Your task to perform on an android device: check google app version Image 0: 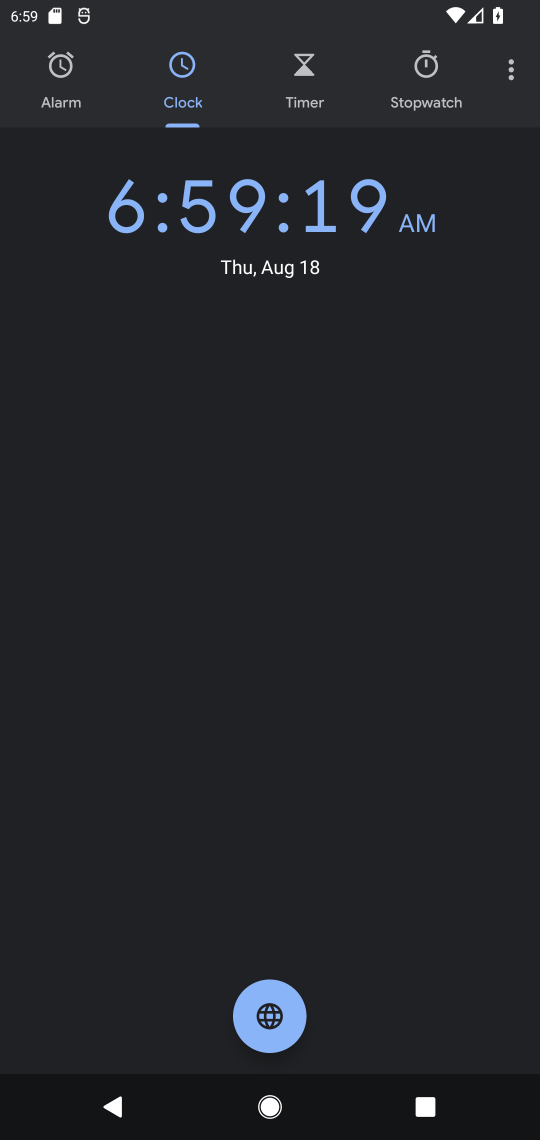
Step 0: press home button
Your task to perform on an android device: check google app version Image 1: 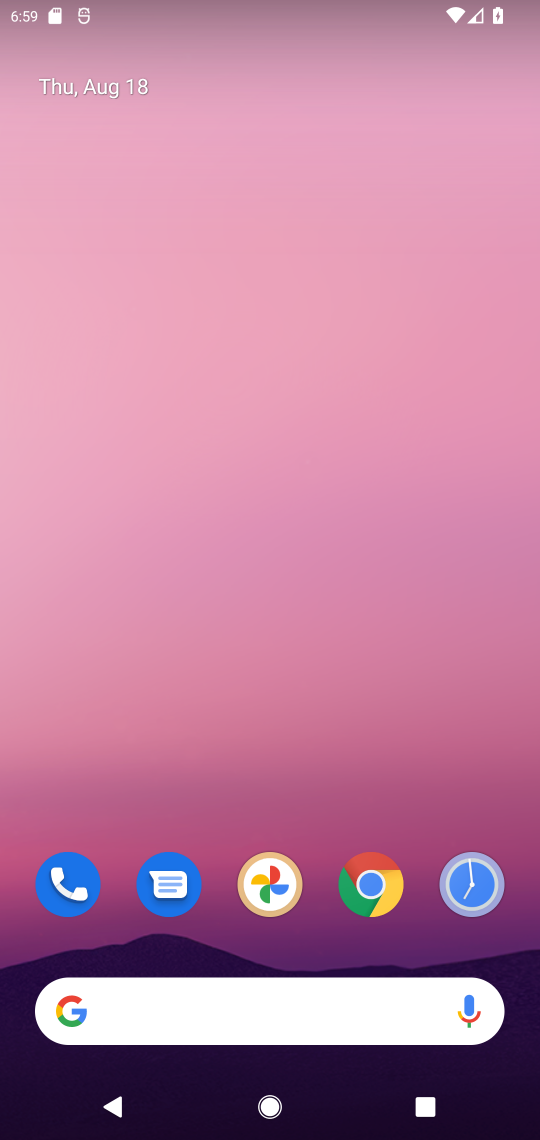
Step 1: click (68, 1011)
Your task to perform on an android device: check google app version Image 2: 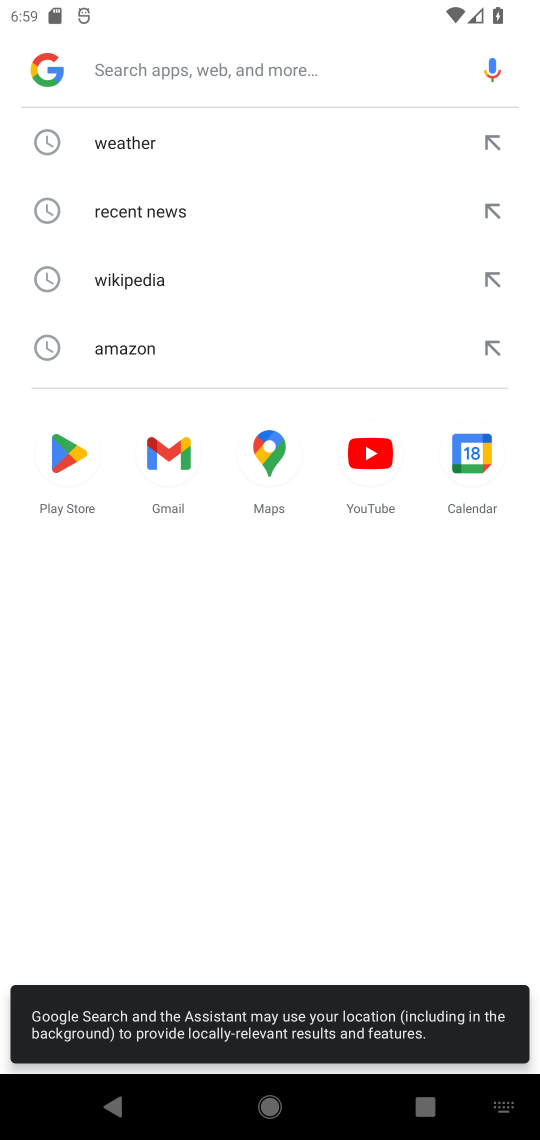
Step 2: click (57, 67)
Your task to perform on an android device: check google app version Image 3: 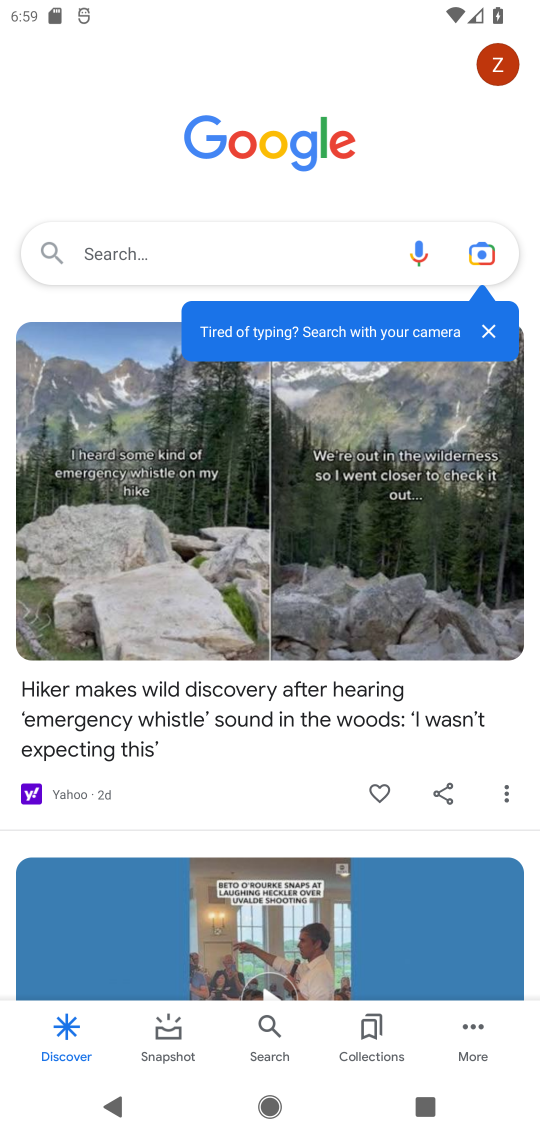
Step 3: click (481, 1029)
Your task to perform on an android device: check google app version Image 4: 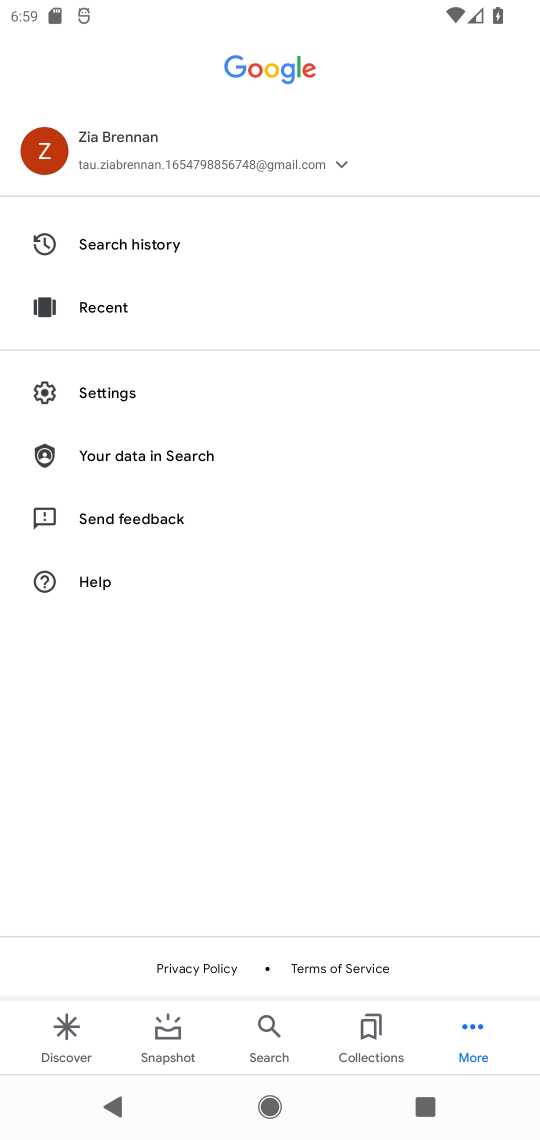
Step 4: click (164, 384)
Your task to perform on an android device: check google app version Image 5: 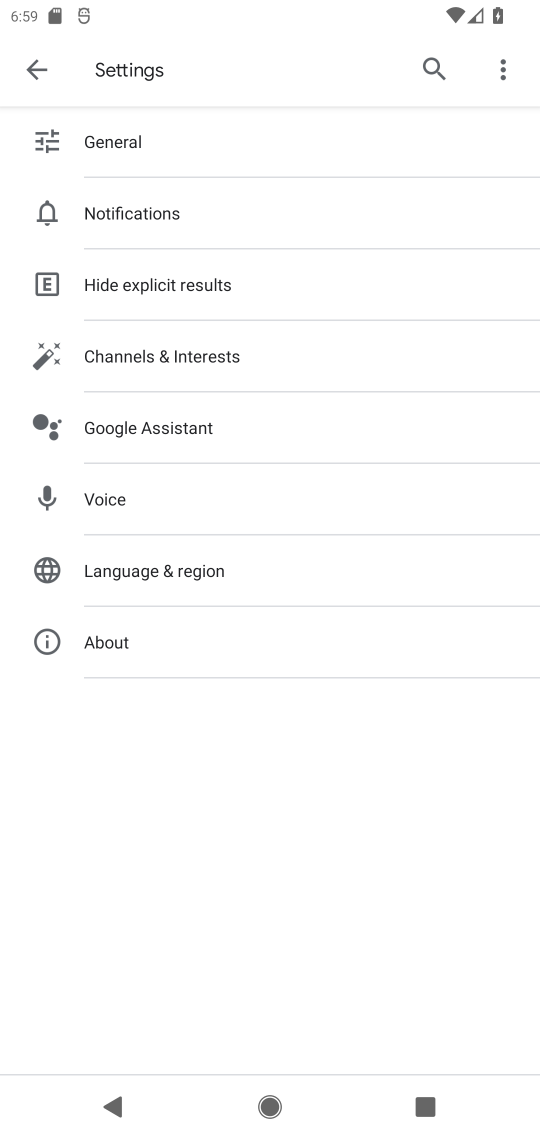
Step 5: click (247, 640)
Your task to perform on an android device: check google app version Image 6: 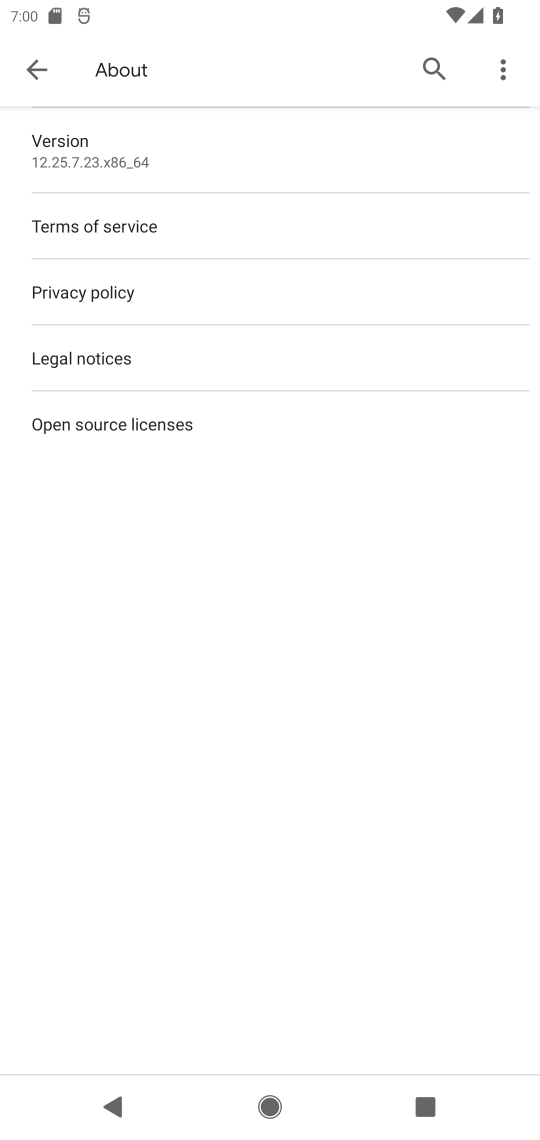
Step 6: task complete